Your task to perform on an android device: change the upload size in google photos Image 0: 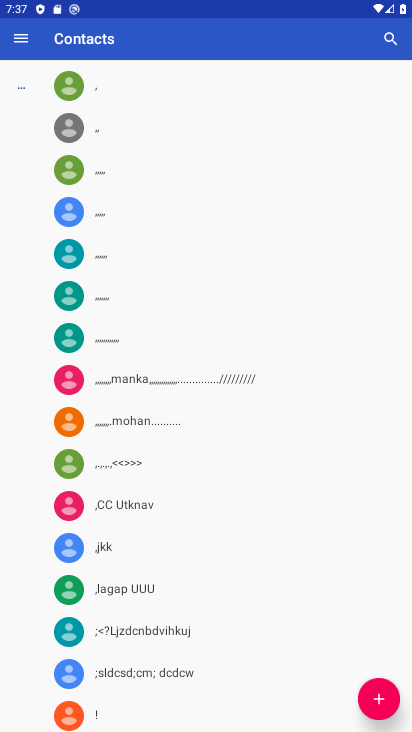
Step 0: press home button
Your task to perform on an android device: change the upload size in google photos Image 1: 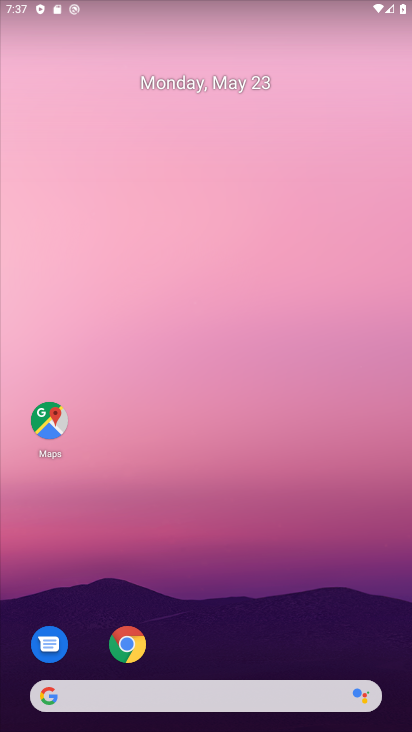
Step 1: drag from (12, 587) to (232, 144)
Your task to perform on an android device: change the upload size in google photos Image 2: 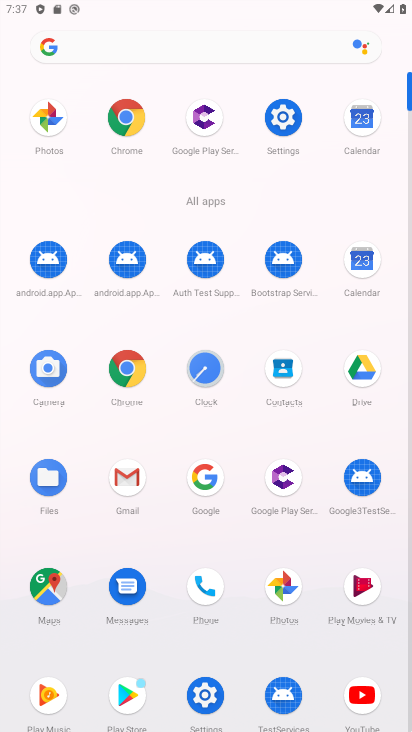
Step 2: click (281, 583)
Your task to perform on an android device: change the upload size in google photos Image 3: 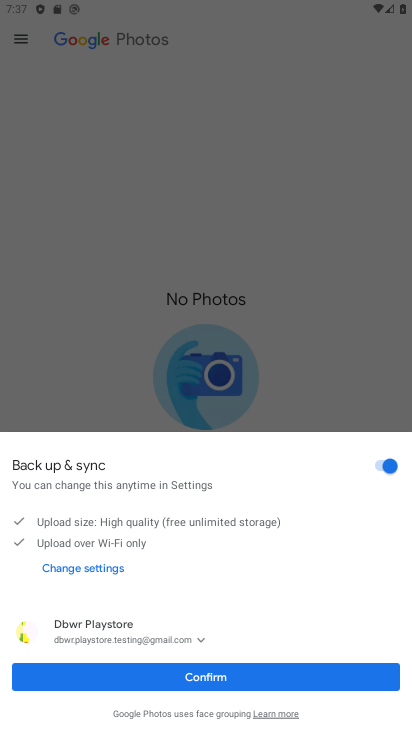
Step 3: click (202, 677)
Your task to perform on an android device: change the upload size in google photos Image 4: 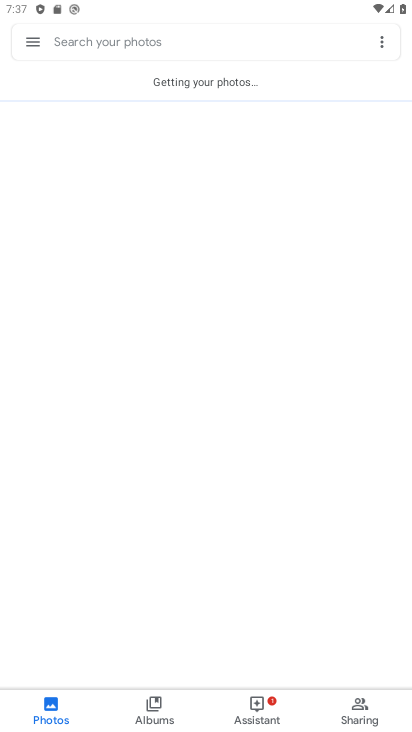
Step 4: click (29, 45)
Your task to perform on an android device: change the upload size in google photos Image 5: 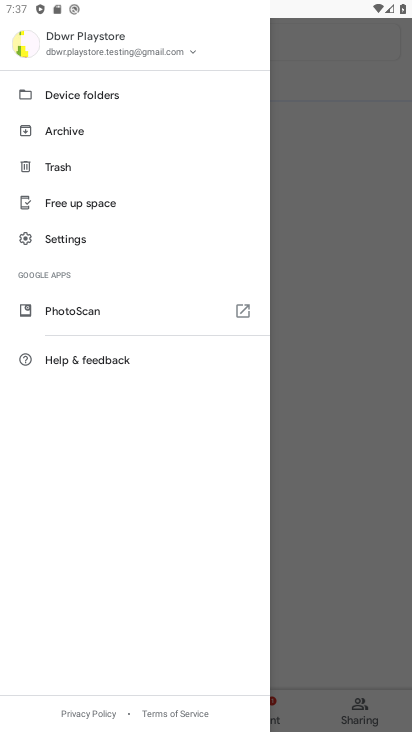
Step 5: click (44, 240)
Your task to perform on an android device: change the upload size in google photos Image 6: 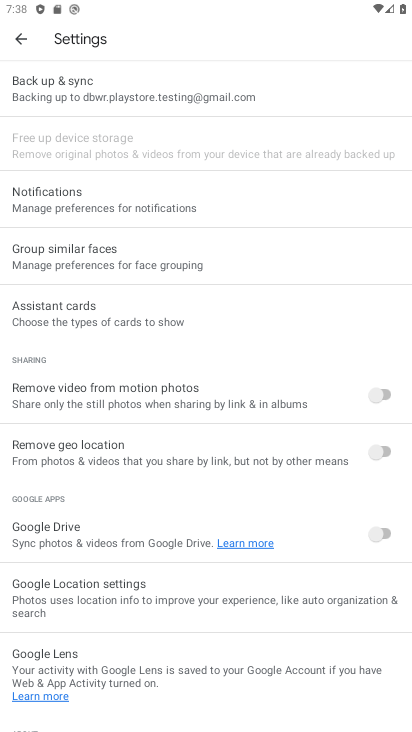
Step 6: click (219, 83)
Your task to perform on an android device: change the upload size in google photos Image 7: 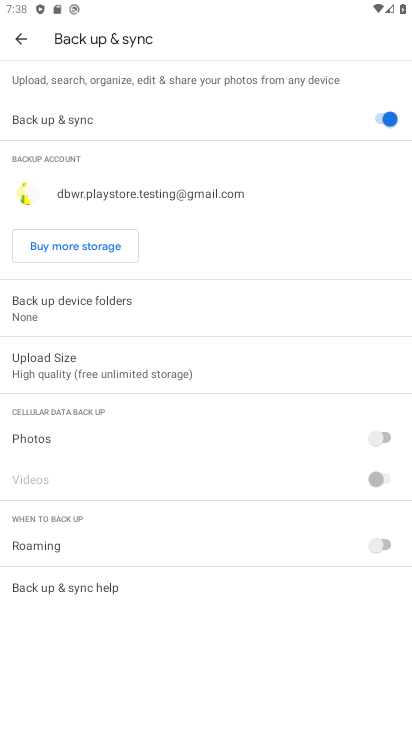
Step 7: click (91, 362)
Your task to perform on an android device: change the upload size in google photos Image 8: 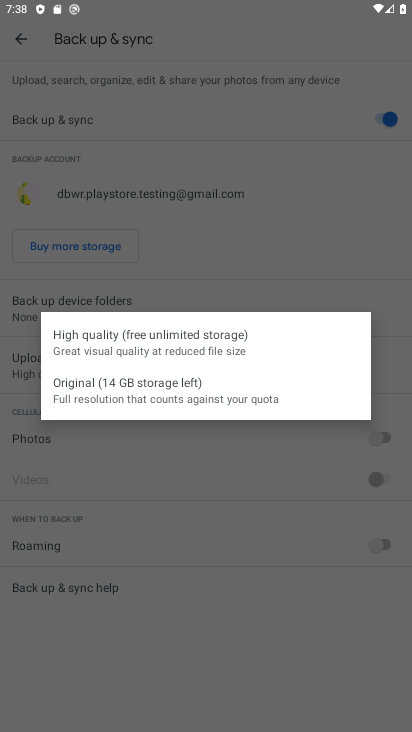
Step 8: click (83, 389)
Your task to perform on an android device: change the upload size in google photos Image 9: 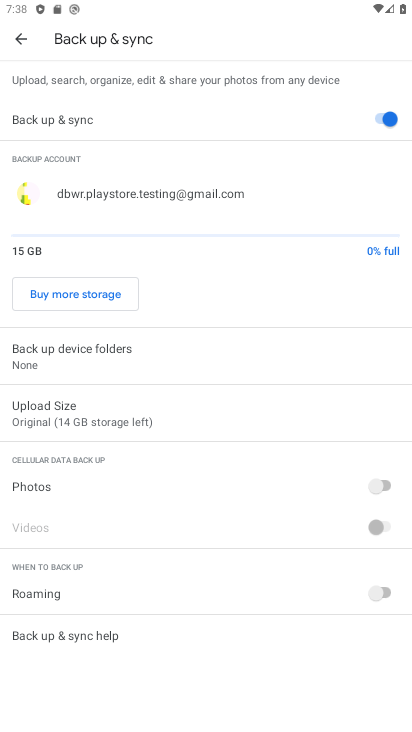
Step 9: task complete